Your task to perform on an android device: open a bookmark in the chrome app Image 0: 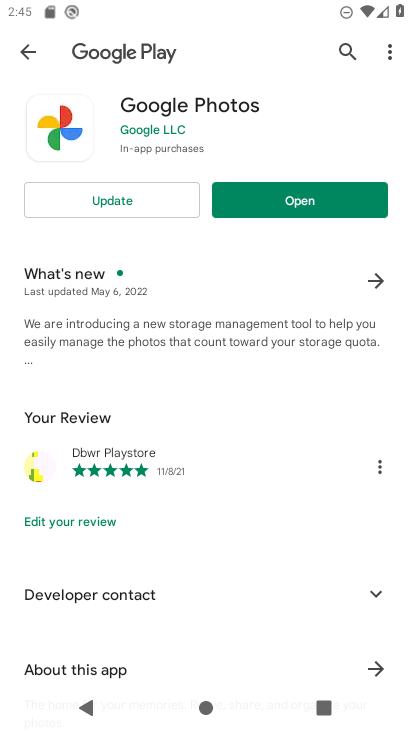
Step 0: press home button
Your task to perform on an android device: open a bookmark in the chrome app Image 1: 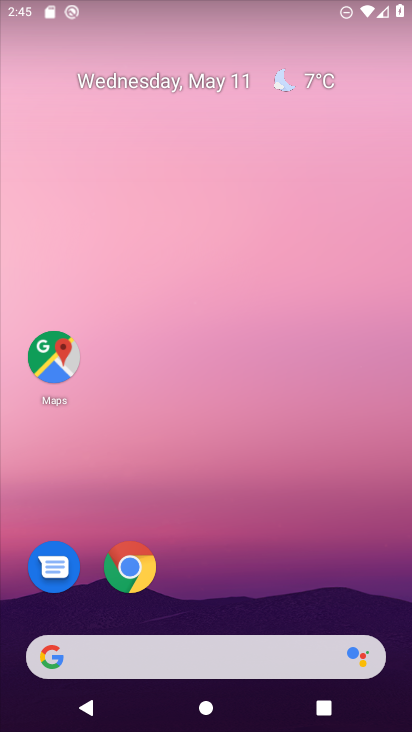
Step 1: click (142, 562)
Your task to perform on an android device: open a bookmark in the chrome app Image 2: 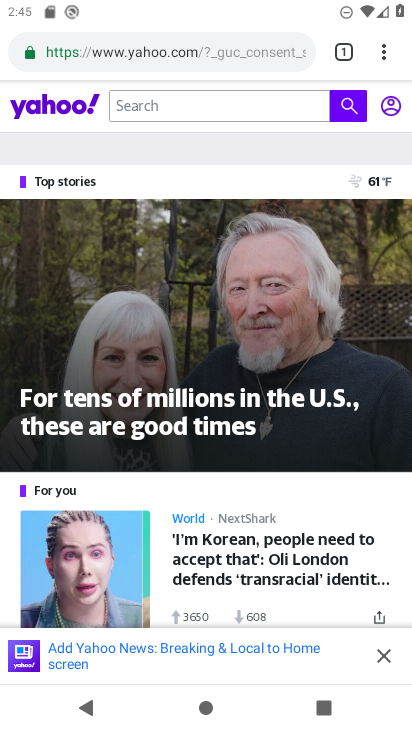
Step 2: click (386, 64)
Your task to perform on an android device: open a bookmark in the chrome app Image 3: 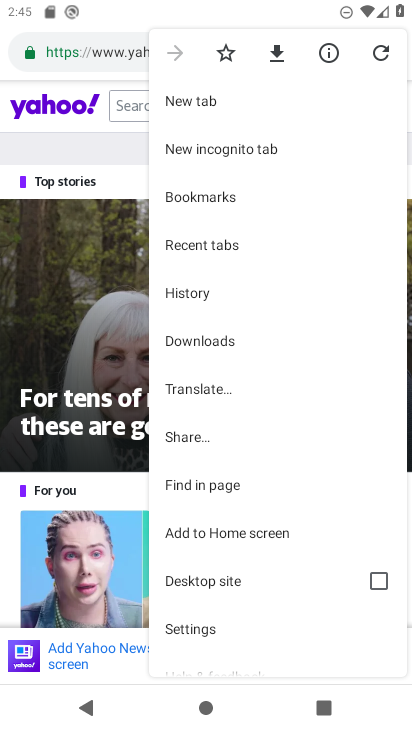
Step 3: click (258, 196)
Your task to perform on an android device: open a bookmark in the chrome app Image 4: 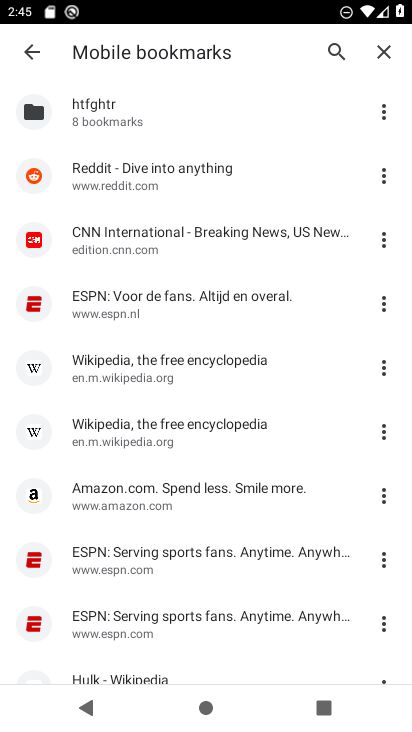
Step 4: click (148, 619)
Your task to perform on an android device: open a bookmark in the chrome app Image 5: 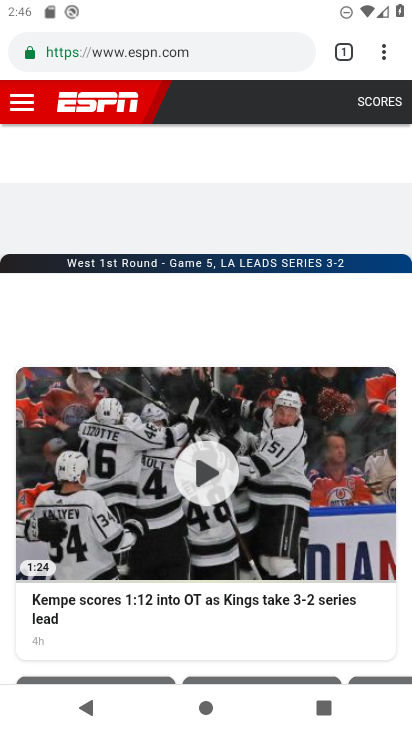
Step 5: task complete